Your task to perform on an android device: Go to CNN.com Image 0: 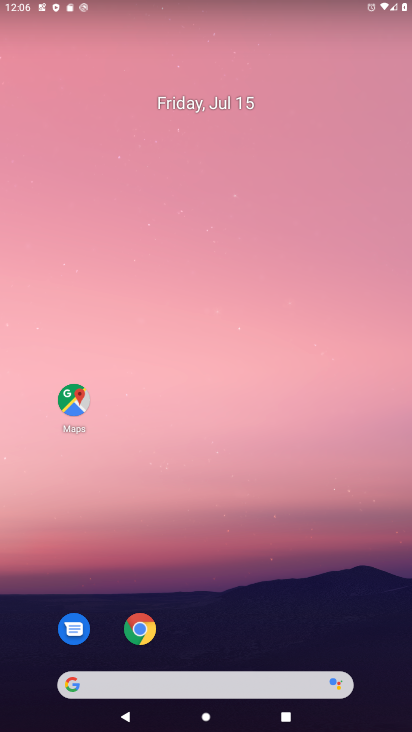
Step 0: click (69, 683)
Your task to perform on an android device: Go to CNN.com Image 1: 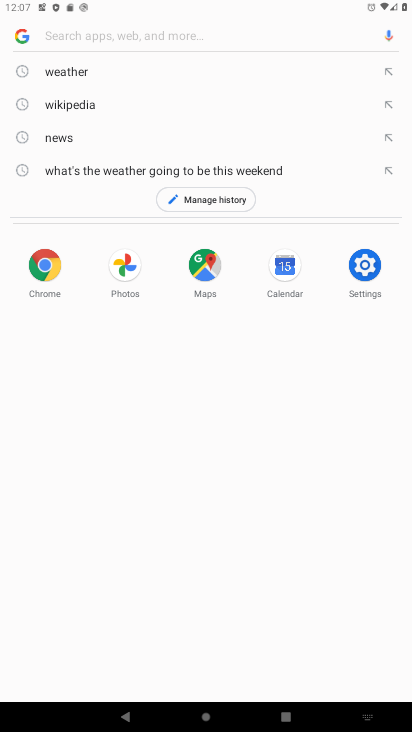
Step 1: type "CNN.com"
Your task to perform on an android device: Go to CNN.com Image 2: 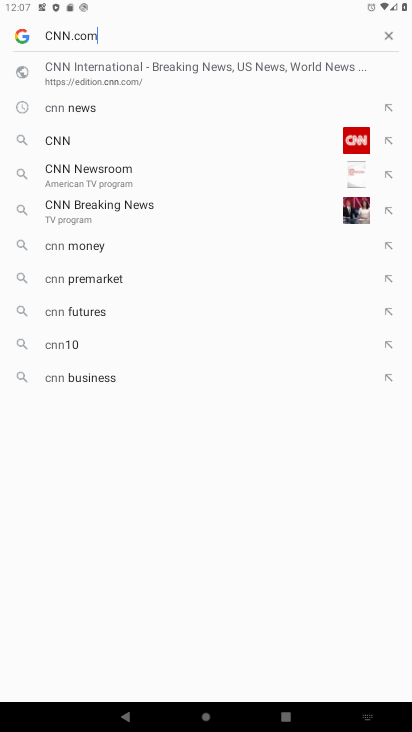
Step 2: press enter
Your task to perform on an android device: Go to CNN.com Image 3: 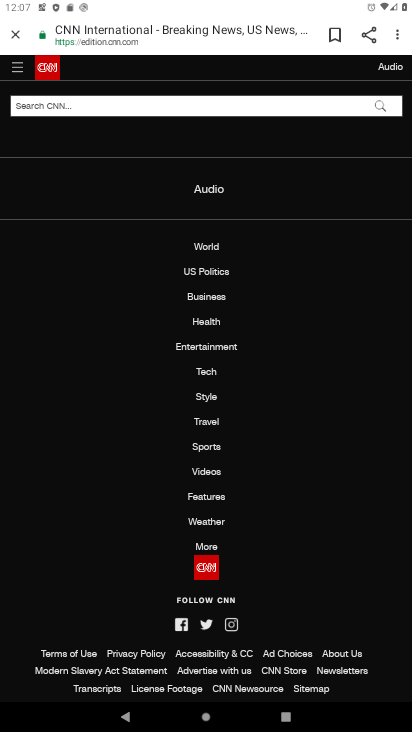
Step 3: task complete